Your task to perform on an android device: Go to calendar. Show me events next week Image 0: 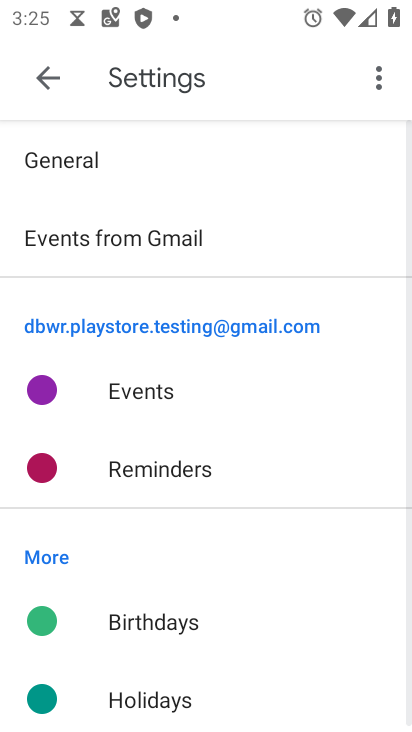
Step 0: press home button
Your task to perform on an android device: Go to calendar. Show me events next week Image 1: 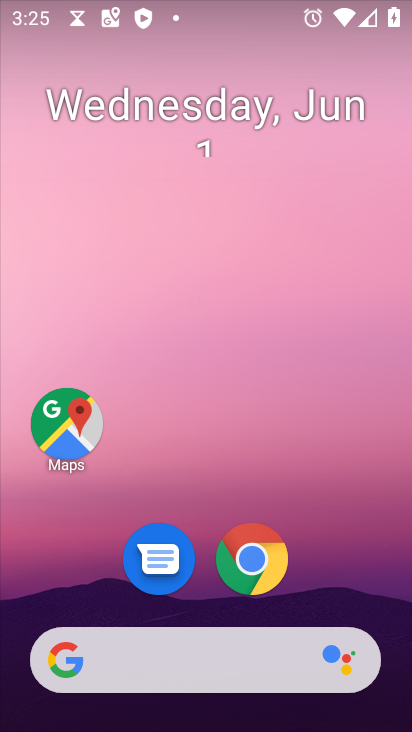
Step 1: drag from (328, 589) to (257, 103)
Your task to perform on an android device: Go to calendar. Show me events next week Image 2: 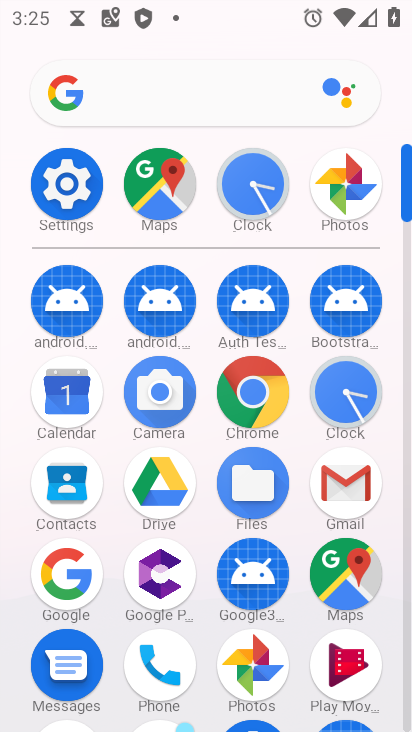
Step 2: click (69, 399)
Your task to perform on an android device: Go to calendar. Show me events next week Image 3: 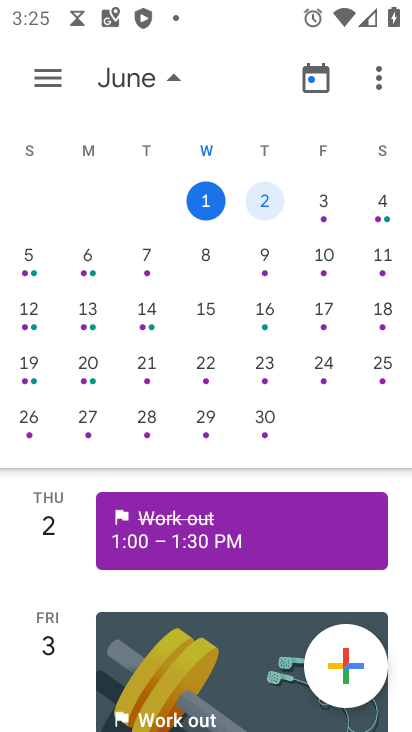
Step 3: click (33, 272)
Your task to perform on an android device: Go to calendar. Show me events next week Image 4: 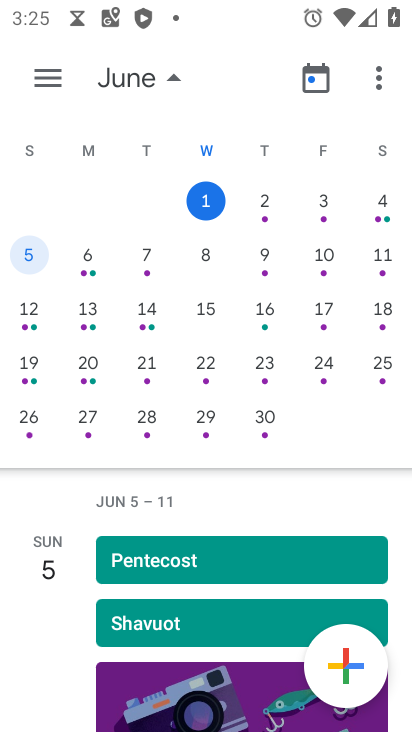
Step 4: task complete